Your task to perform on an android device: Open display settings Image 0: 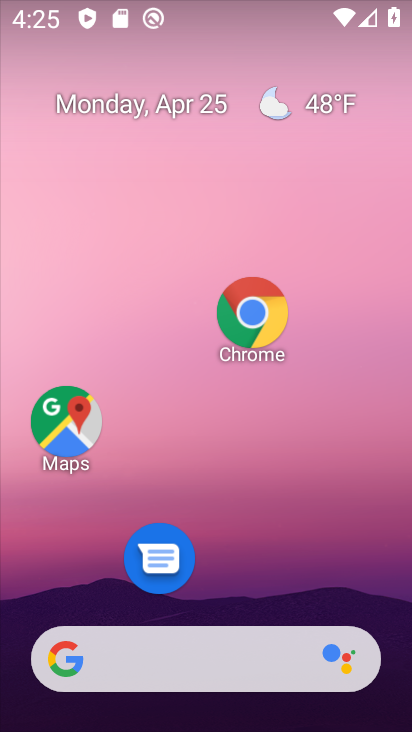
Step 0: drag from (391, 351) to (402, 10)
Your task to perform on an android device: Open display settings Image 1: 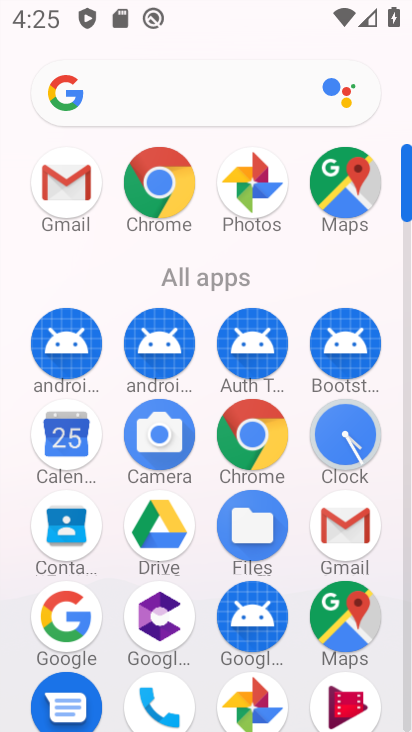
Step 1: drag from (409, 458) to (402, 201)
Your task to perform on an android device: Open display settings Image 2: 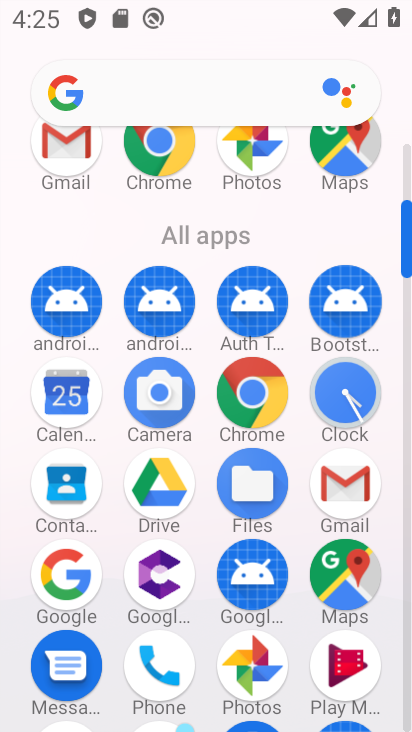
Step 2: click (239, 602)
Your task to perform on an android device: Open display settings Image 3: 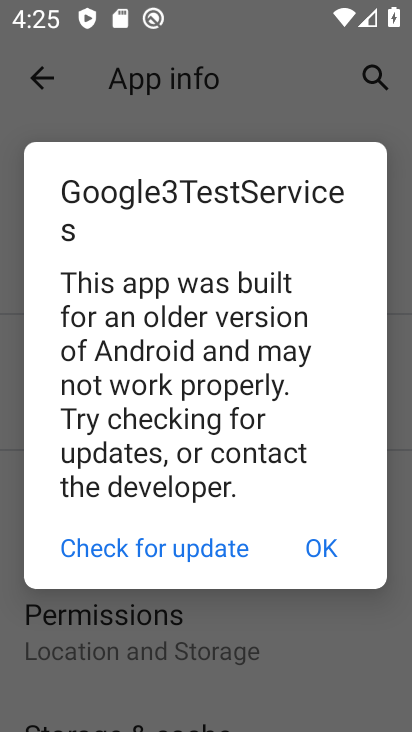
Step 3: press home button
Your task to perform on an android device: Open display settings Image 4: 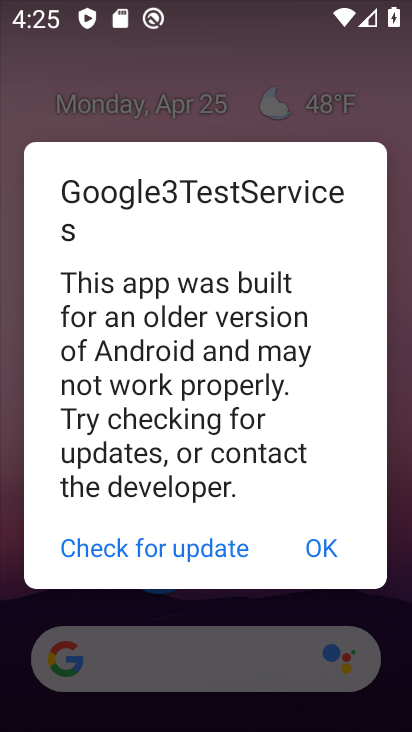
Step 4: click (319, 548)
Your task to perform on an android device: Open display settings Image 5: 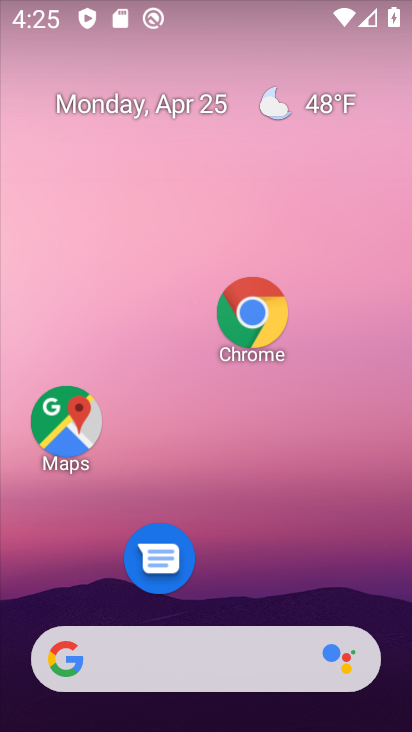
Step 5: drag from (346, 461) to (285, 72)
Your task to perform on an android device: Open display settings Image 6: 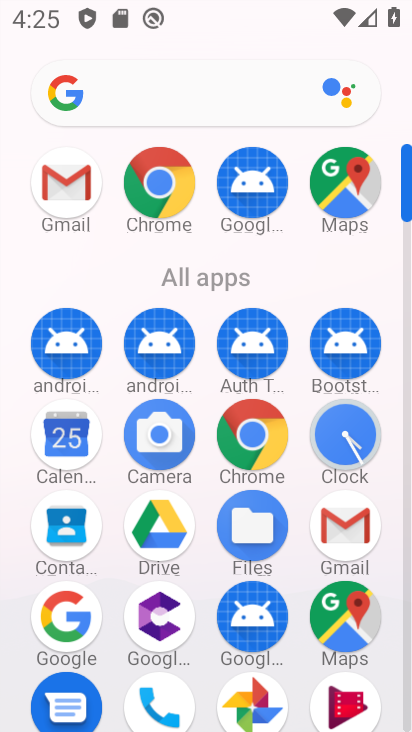
Step 6: drag from (389, 467) to (402, 92)
Your task to perform on an android device: Open display settings Image 7: 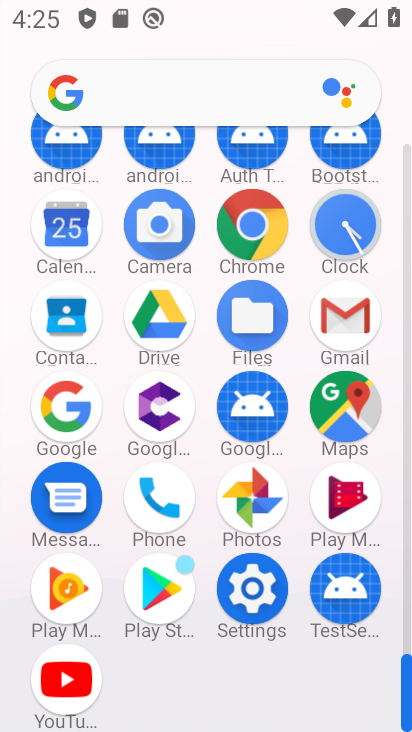
Step 7: click (280, 605)
Your task to perform on an android device: Open display settings Image 8: 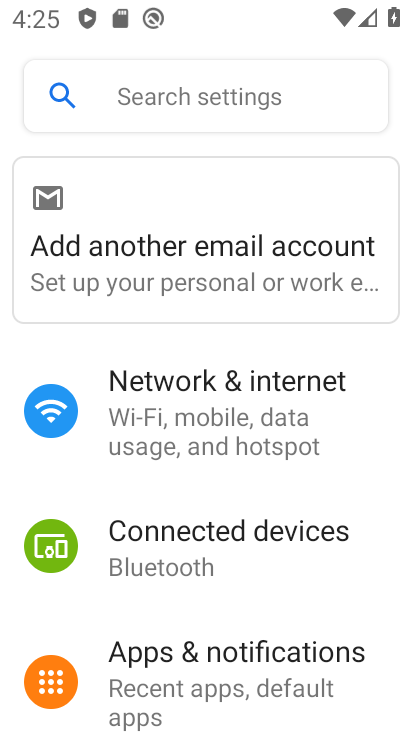
Step 8: drag from (202, 456) to (224, 52)
Your task to perform on an android device: Open display settings Image 9: 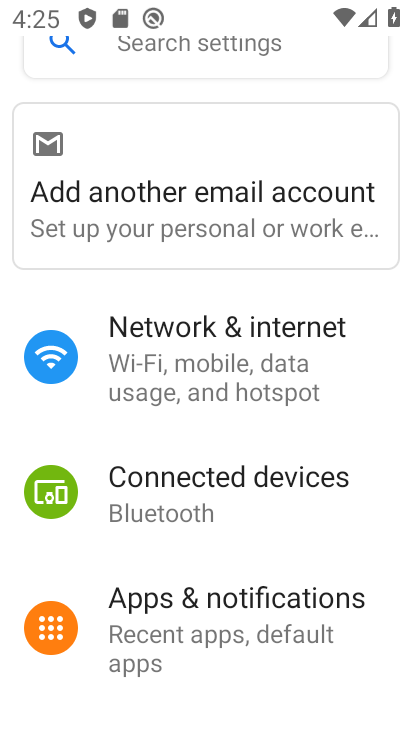
Step 9: drag from (288, 555) to (337, 82)
Your task to perform on an android device: Open display settings Image 10: 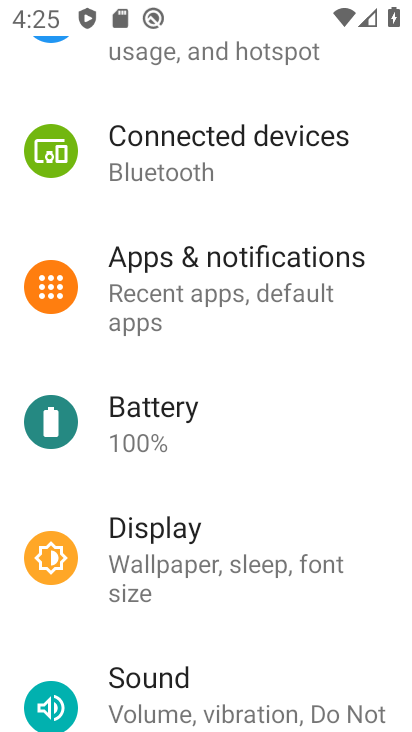
Step 10: click (173, 543)
Your task to perform on an android device: Open display settings Image 11: 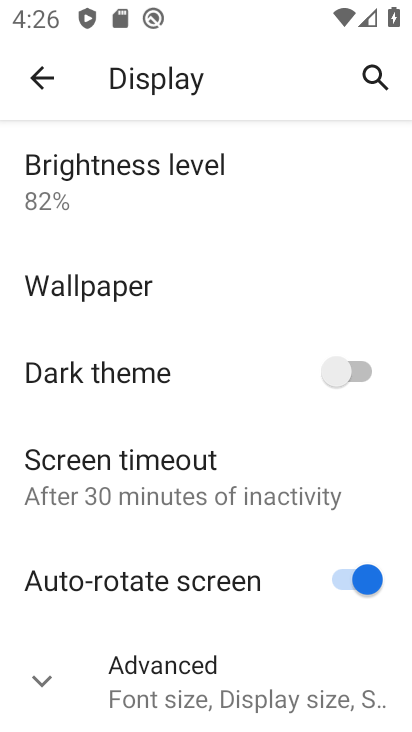
Step 11: task complete